Your task to perform on an android device: Open network settings Image 0: 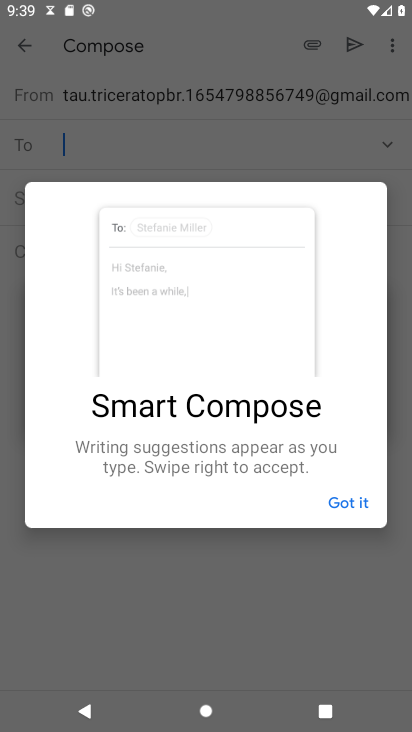
Step 0: press home button
Your task to perform on an android device: Open network settings Image 1: 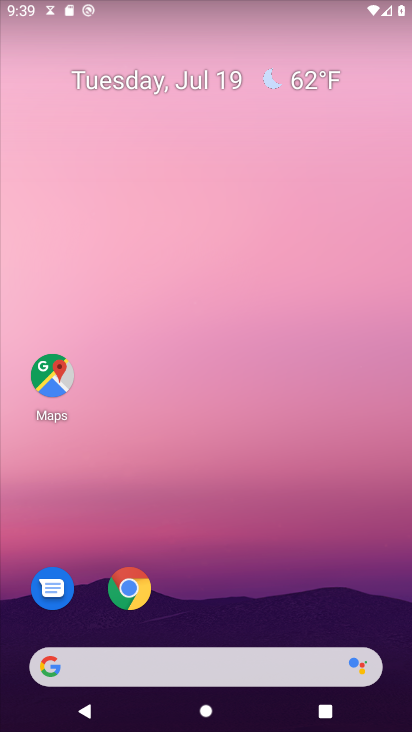
Step 1: drag from (196, 511) to (201, 167)
Your task to perform on an android device: Open network settings Image 2: 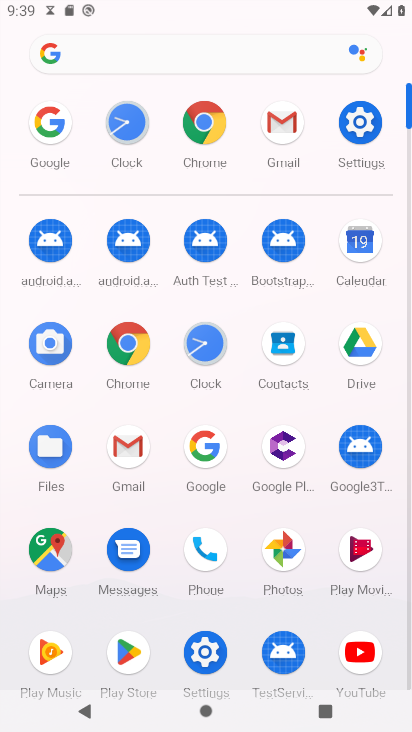
Step 2: click (364, 118)
Your task to perform on an android device: Open network settings Image 3: 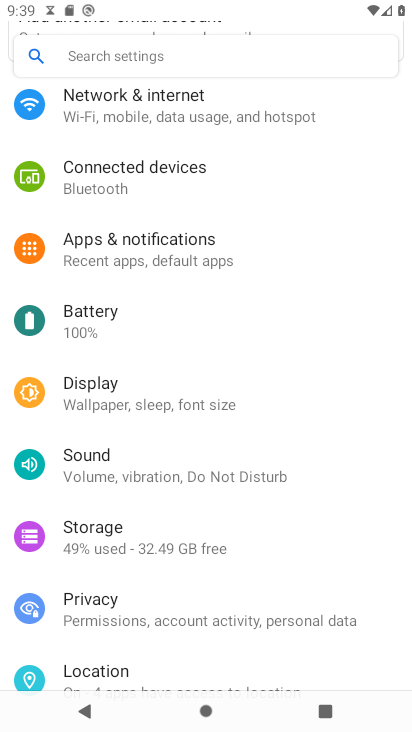
Step 3: click (223, 115)
Your task to perform on an android device: Open network settings Image 4: 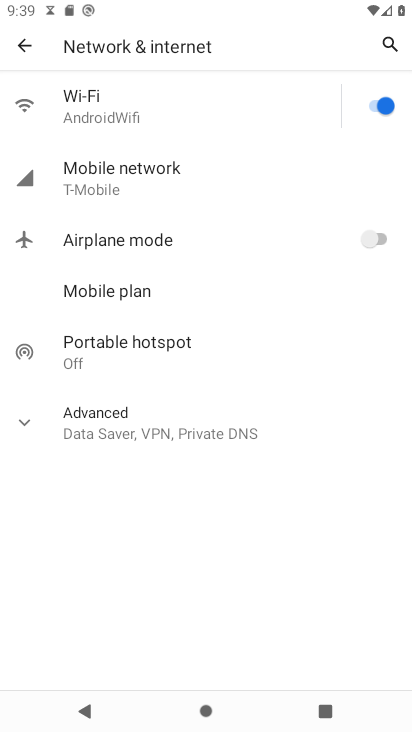
Step 4: task complete